Your task to perform on an android device: Go to sound settings Image 0: 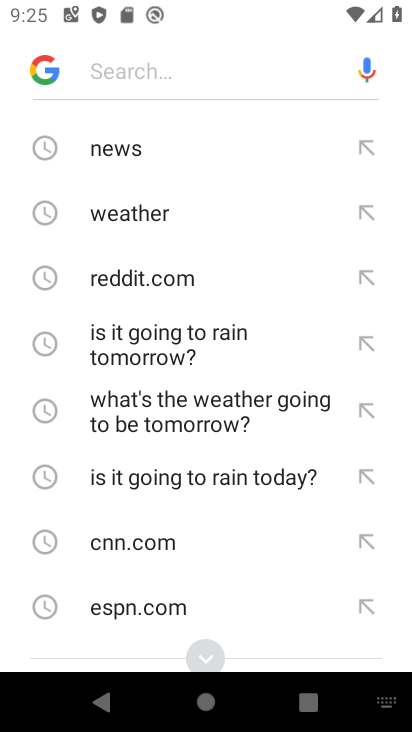
Step 0: press home button
Your task to perform on an android device: Go to sound settings Image 1: 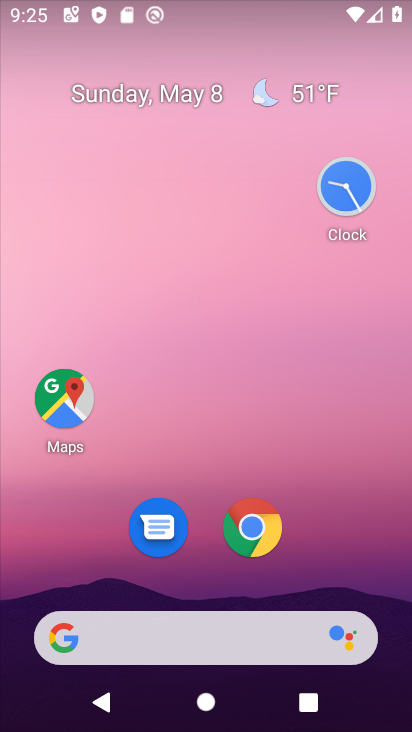
Step 1: drag from (309, 564) to (253, 76)
Your task to perform on an android device: Go to sound settings Image 2: 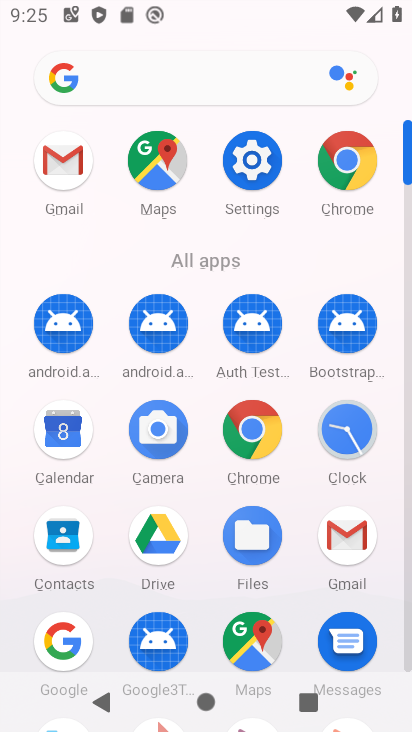
Step 2: click (250, 147)
Your task to perform on an android device: Go to sound settings Image 3: 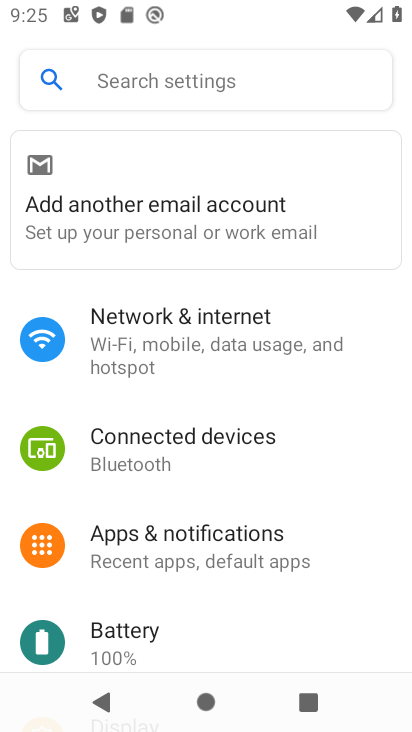
Step 3: drag from (269, 648) to (304, 348)
Your task to perform on an android device: Go to sound settings Image 4: 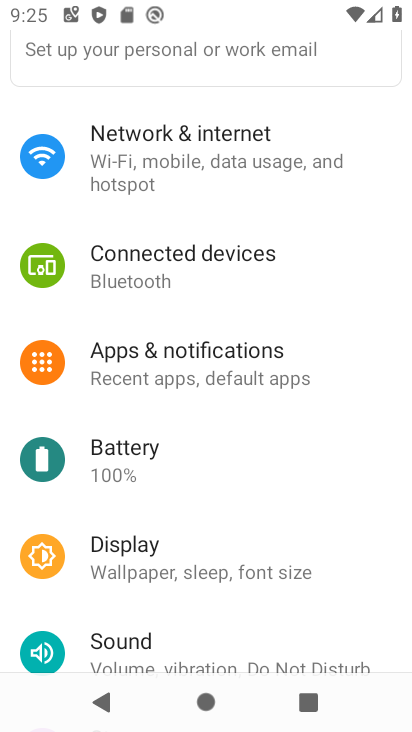
Step 4: click (166, 643)
Your task to perform on an android device: Go to sound settings Image 5: 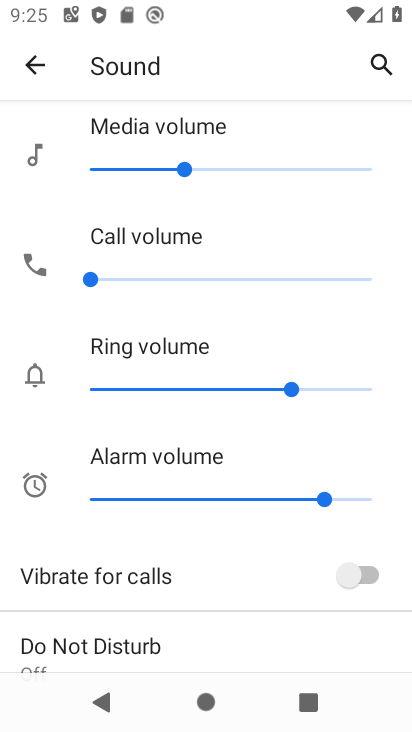
Step 5: task complete